Your task to perform on an android device: turn off wifi Image 0: 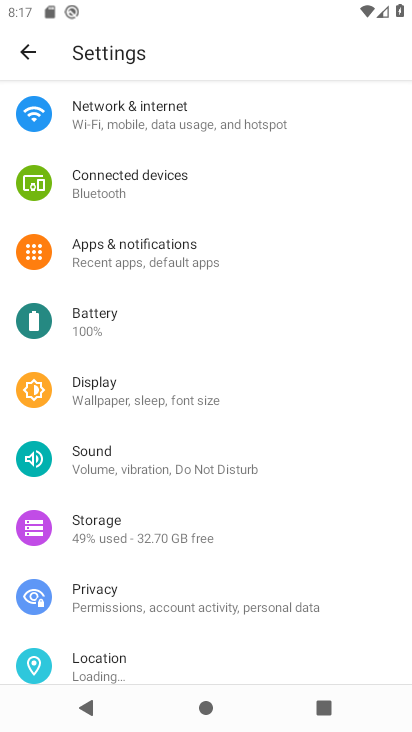
Step 0: click (168, 128)
Your task to perform on an android device: turn off wifi Image 1: 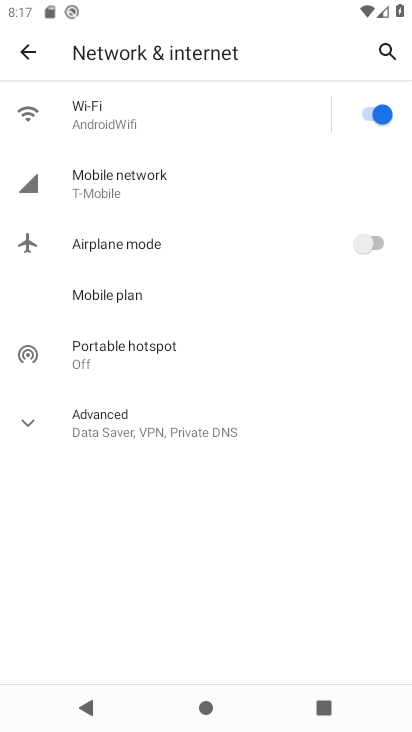
Step 1: click (368, 112)
Your task to perform on an android device: turn off wifi Image 2: 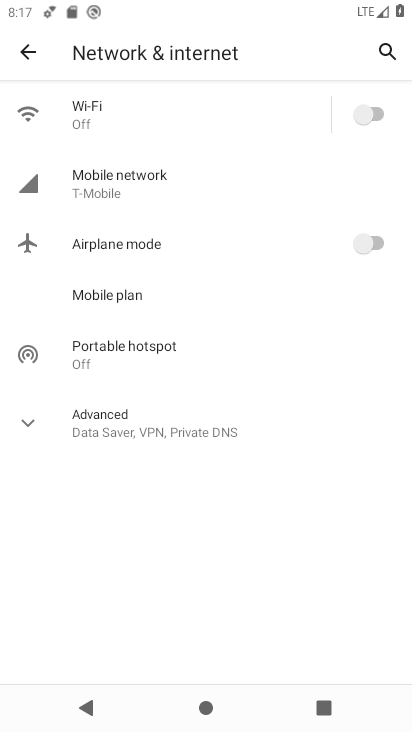
Step 2: task complete